Your task to perform on an android device: Turn off the flashlight Image 0: 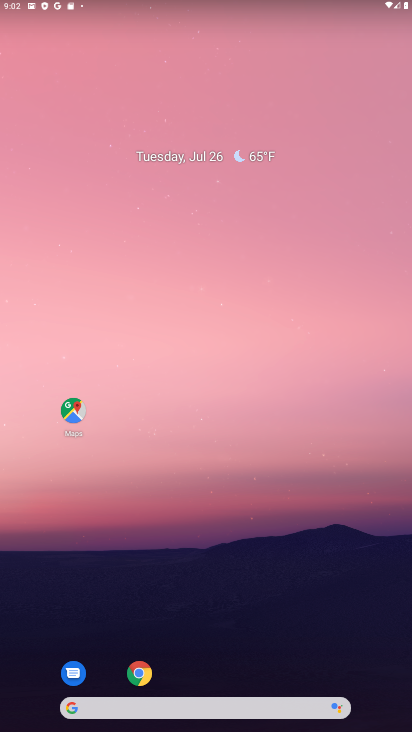
Step 0: drag from (218, 21) to (220, 70)
Your task to perform on an android device: Turn off the flashlight Image 1: 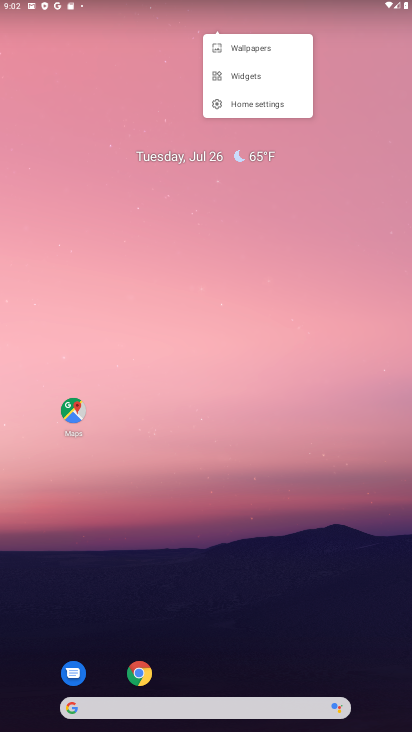
Step 1: drag from (195, 9) to (212, 502)
Your task to perform on an android device: Turn off the flashlight Image 2: 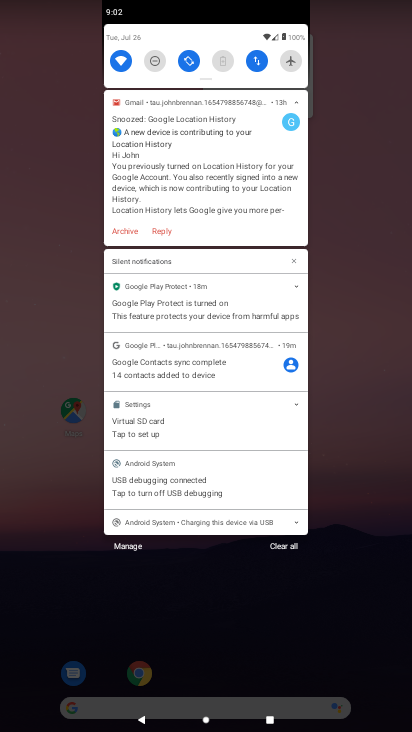
Step 2: drag from (201, 74) to (206, 376)
Your task to perform on an android device: Turn off the flashlight Image 3: 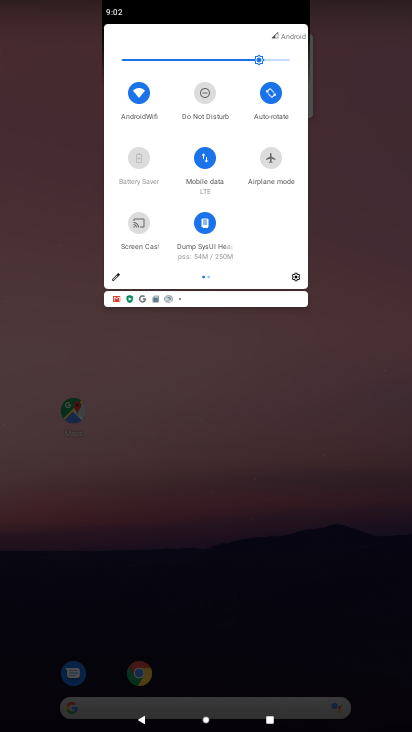
Step 3: click (115, 278)
Your task to perform on an android device: Turn off the flashlight Image 4: 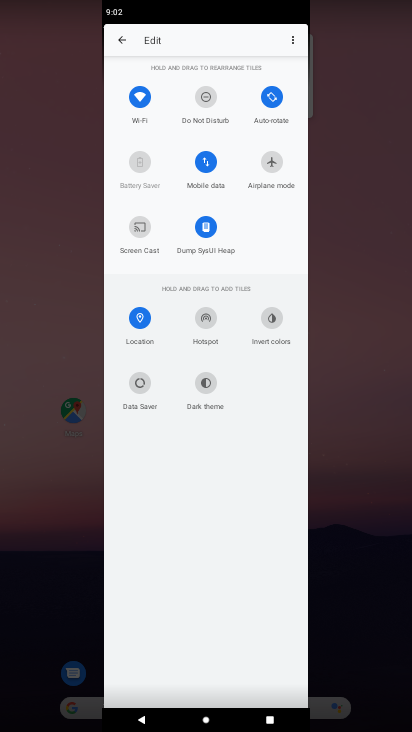
Step 4: task complete